Your task to perform on an android device: visit the assistant section in the google photos Image 0: 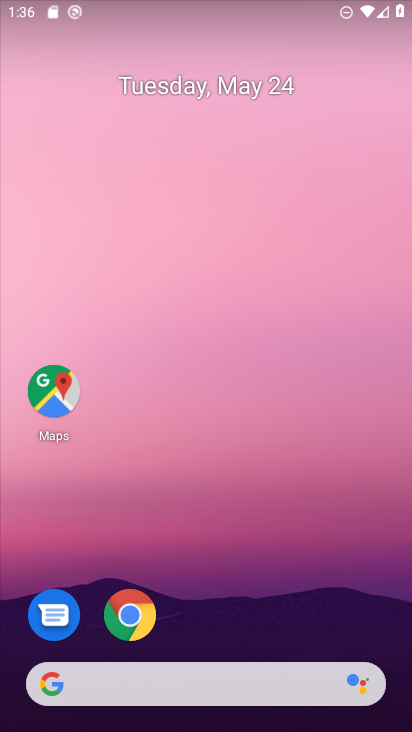
Step 0: drag from (260, 574) to (255, 147)
Your task to perform on an android device: visit the assistant section in the google photos Image 1: 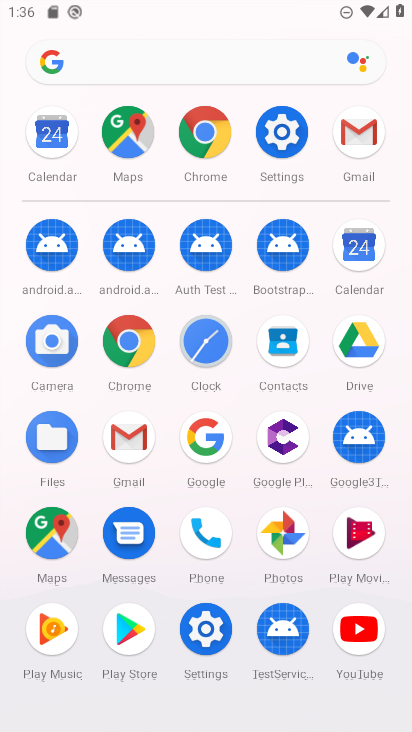
Step 1: click (272, 532)
Your task to perform on an android device: visit the assistant section in the google photos Image 2: 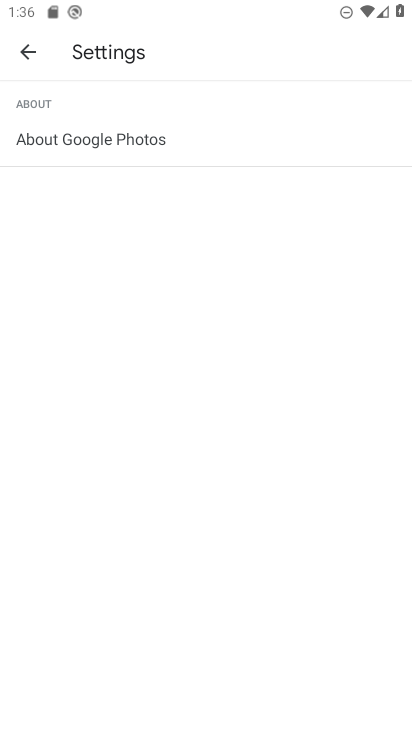
Step 2: click (25, 60)
Your task to perform on an android device: visit the assistant section in the google photos Image 3: 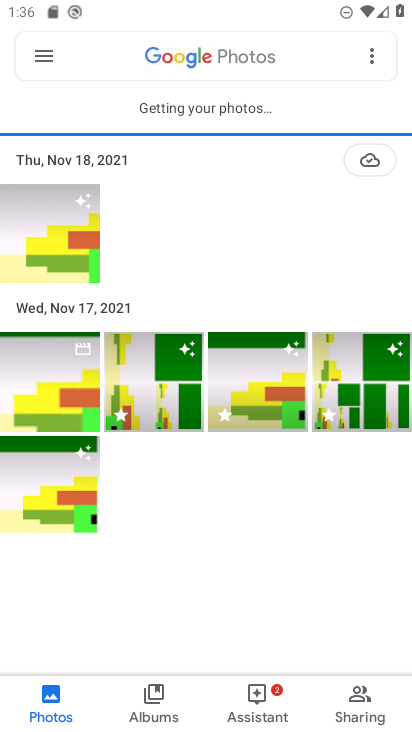
Step 3: click (260, 702)
Your task to perform on an android device: visit the assistant section in the google photos Image 4: 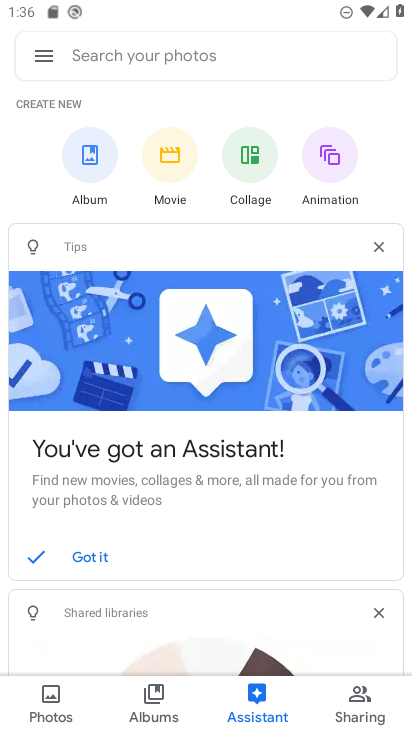
Step 4: task complete